Your task to perform on an android device: open a new tab in the chrome app Image 0: 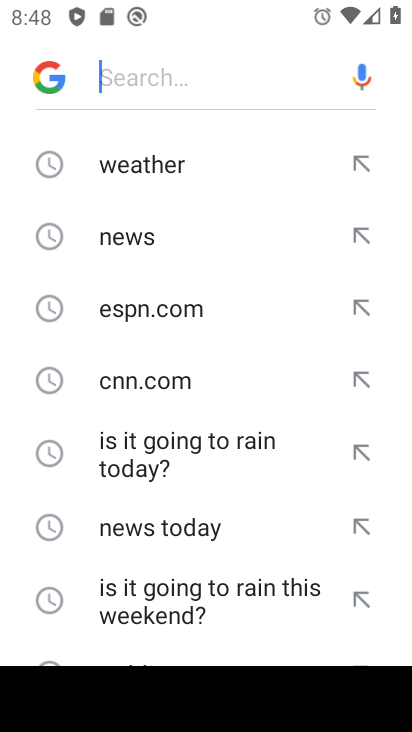
Step 0: press home button
Your task to perform on an android device: open a new tab in the chrome app Image 1: 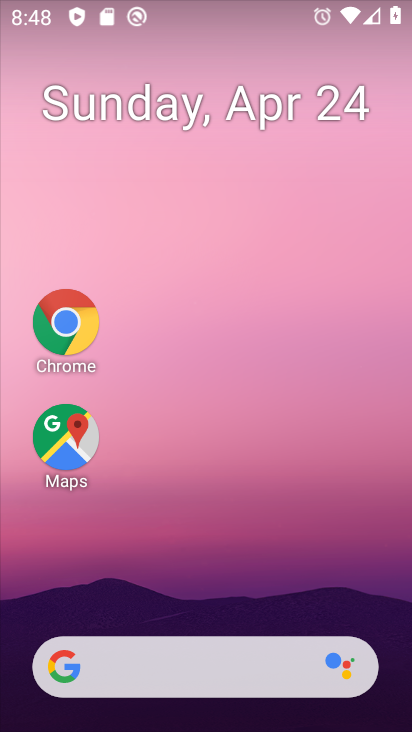
Step 1: click (73, 332)
Your task to perform on an android device: open a new tab in the chrome app Image 2: 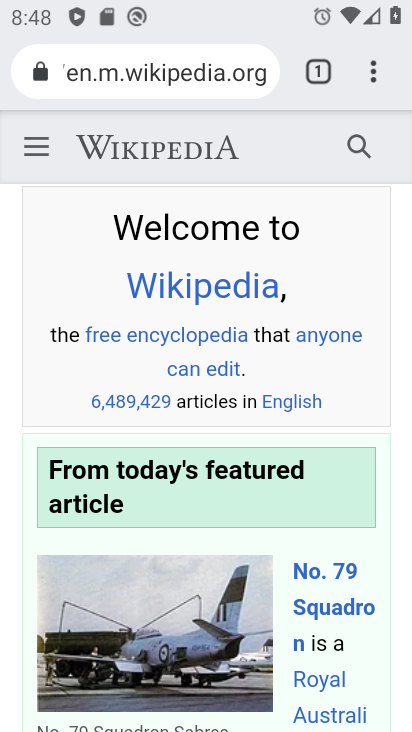
Step 2: click (370, 76)
Your task to perform on an android device: open a new tab in the chrome app Image 3: 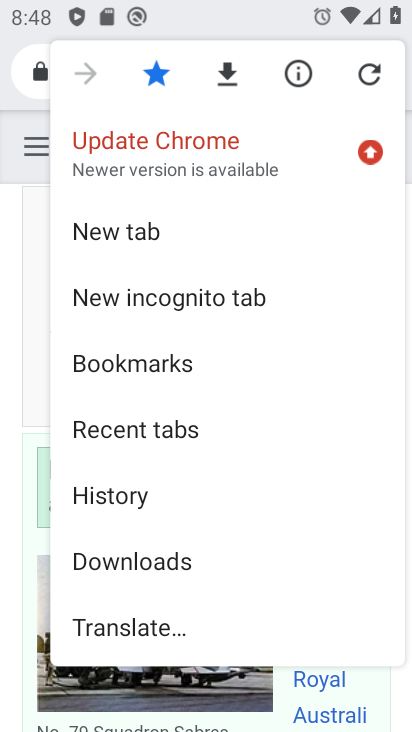
Step 3: click (135, 226)
Your task to perform on an android device: open a new tab in the chrome app Image 4: 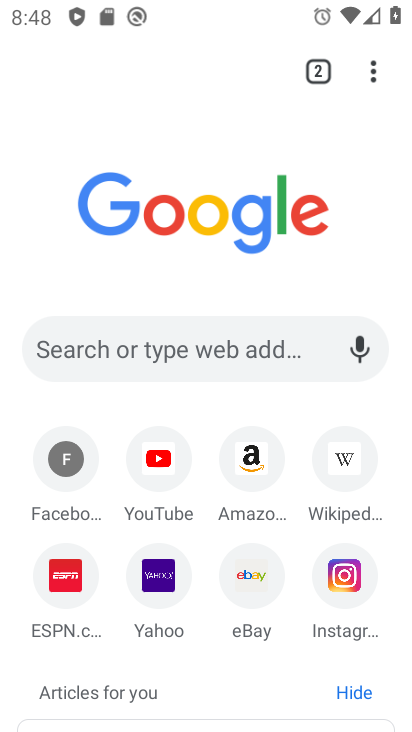
Step 4: task complete